Your task to perform on an android device: turn on the 12-hour format for clock Image 0: 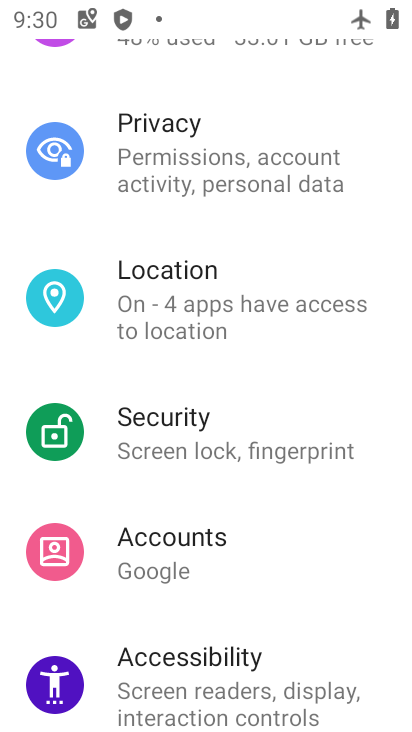
Step 0: press home button
Your task to perform on an android device: turn on the 12-hour format for clock Image 1: 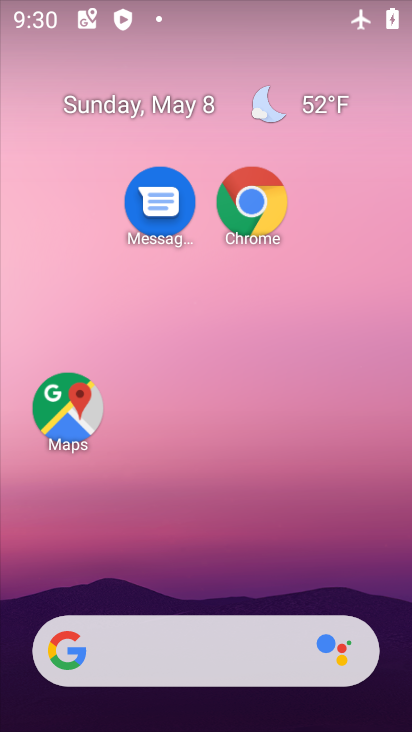
Step 1: drag from (210, 602) to (191, 0)
Your task to perform on an android device: turn on the 12-hour format for clock Image 2: 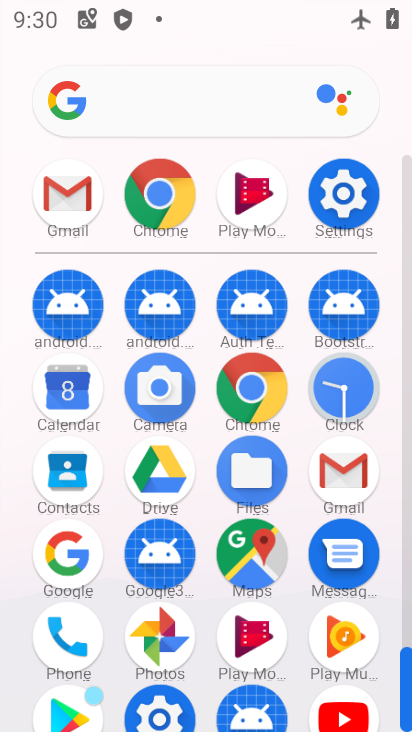
Step 2: click (337, 393)
Your task to perform on an android device: turn on the 12-hour format for clock Image 3: 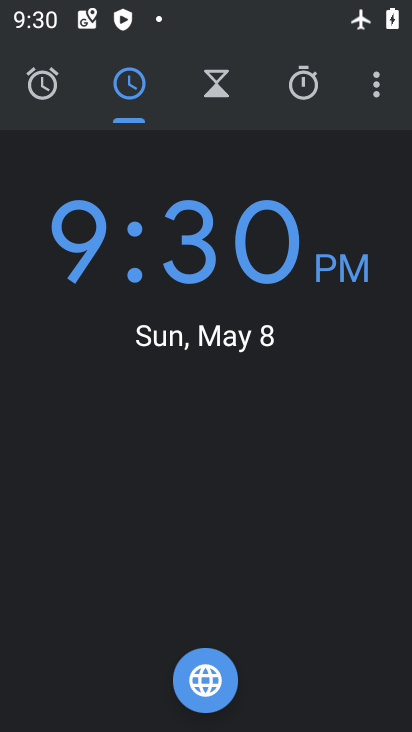
Step 3: click (383, 86)
Your task to perform on an android device: turn on the 12-hour format for clock Image 4: 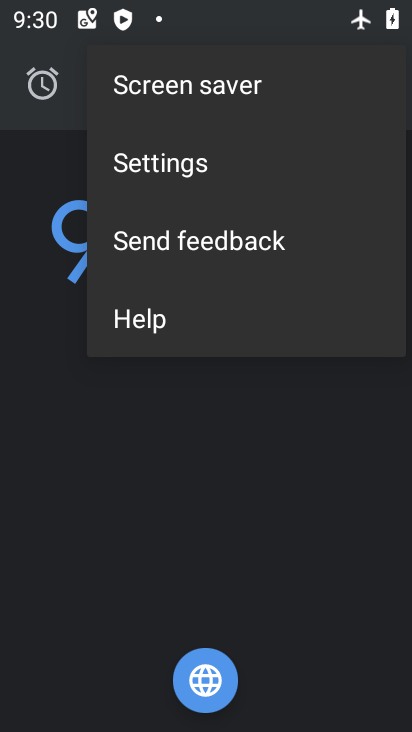
Step 4: click (156, 177)
Your task to perform on an android device: turn on the 12-hour format for clock Image 5: 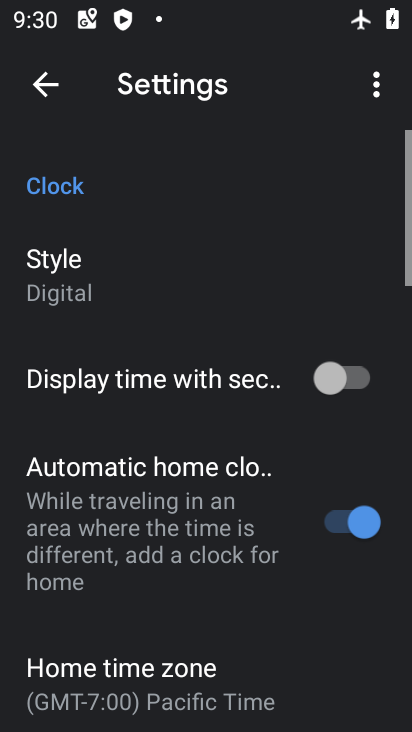
Step 5: drag from (181, 582) to (104, 34)
Your task to perform on an android device: turn on the 12-hour format for clock Image 6: 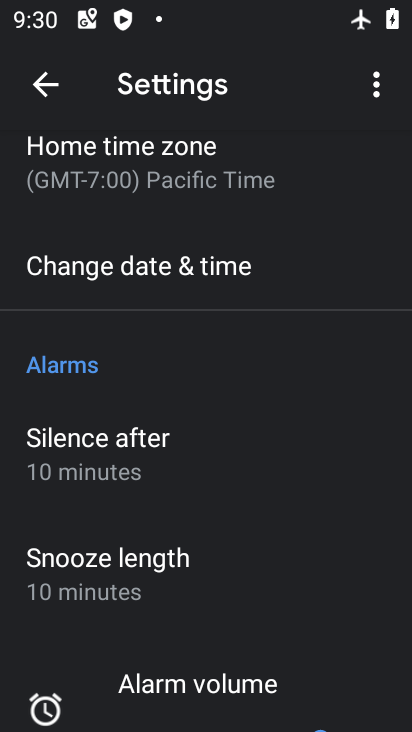
Step 6: click (109, 258)
Your task to perform on an android device: turn on the 12-hour format for clock Image 7: 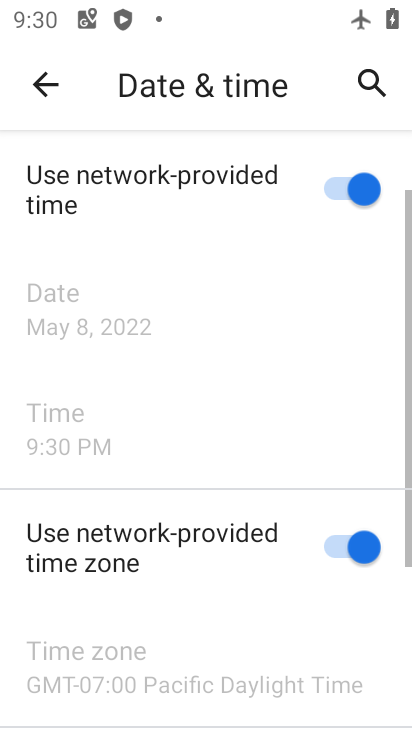
Step 7: task complete